Your task to perform on an android device: Clear the cart on target. Add "usb-c" to the cart on target Image 0: 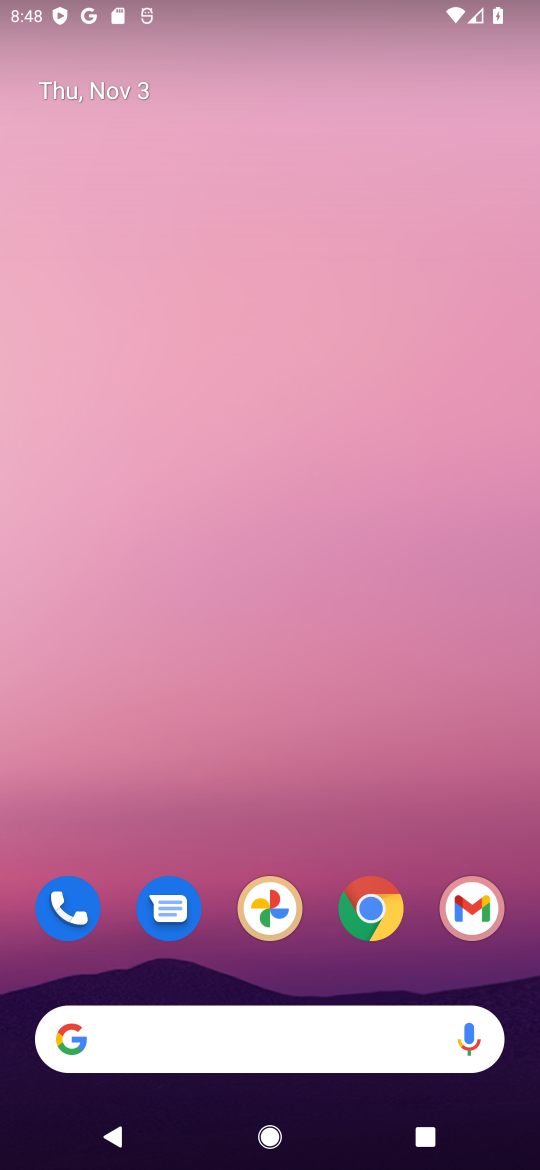
Step 0: click (357, 901)
Your task to perform on an android device: Clear the cart on target. Add "usb-c" to the cart on target Image 1: 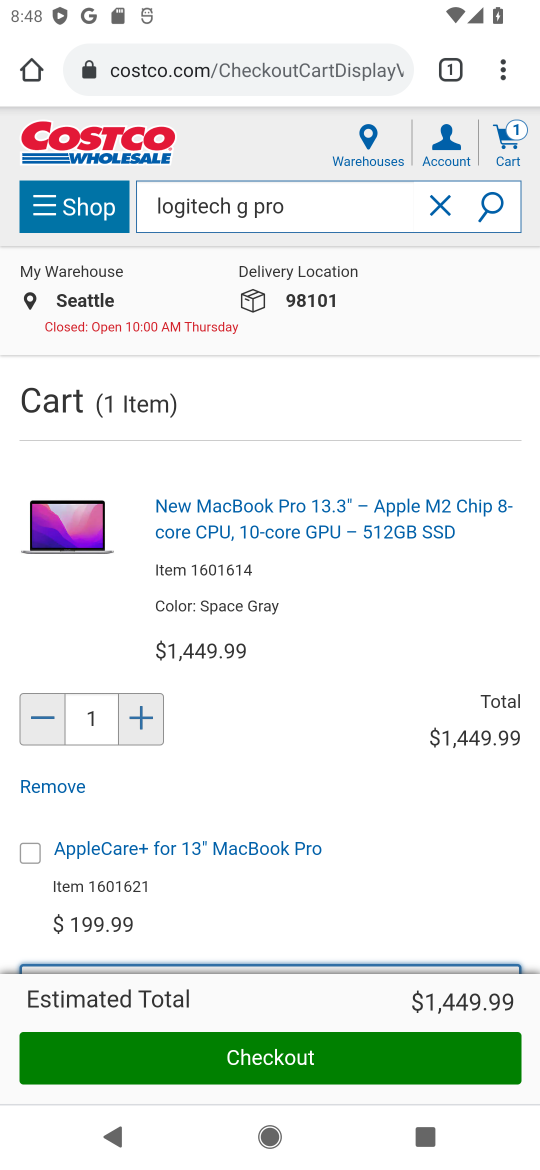
Step 1: click (338, 53)
Your task to perform on an android device: Clear the cart on target. Add "usb-c" to the cart on target Image 2: 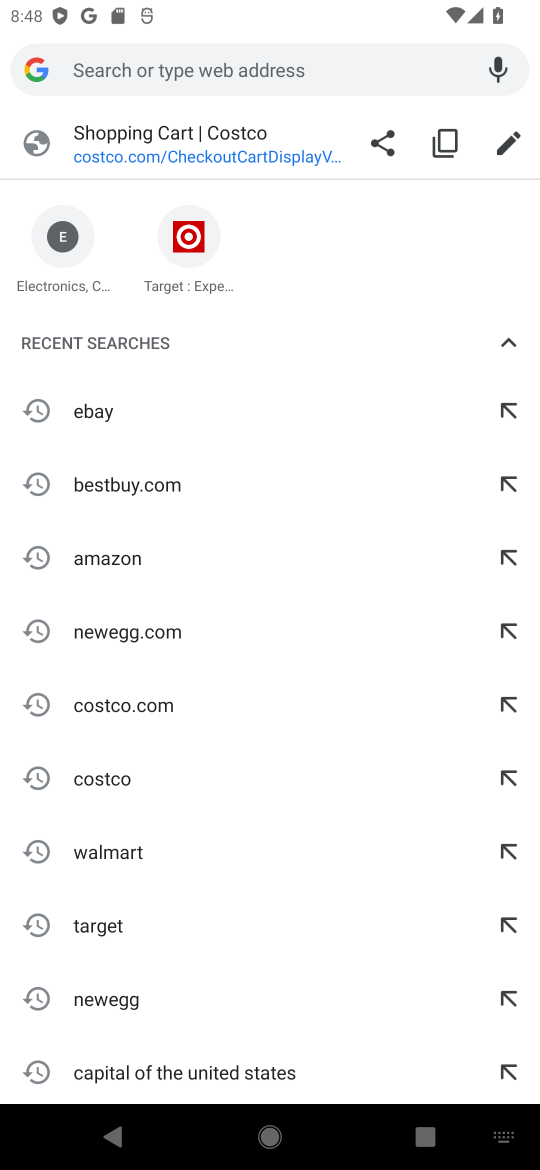
Step 2: click (191, 254)
Your task to perform on an android device: Clear the cart on target. Add "usb-c" to the cart on target Image 3: 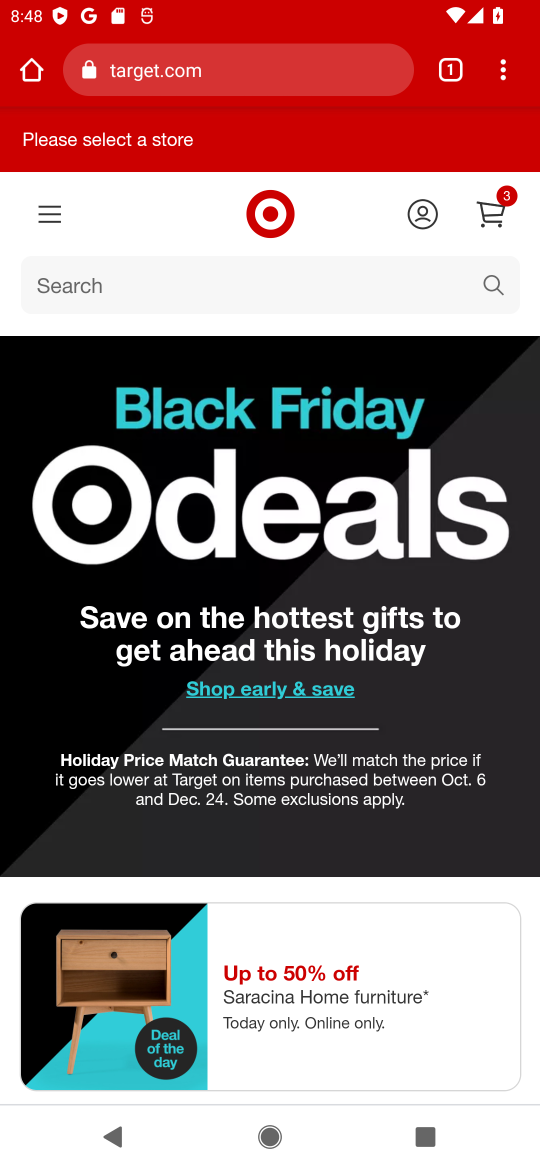
Step 3: click (495, 219)
Your task to perform on an android device: Clear the cart on target. Add "usb-c" to the cart on target Image 4: 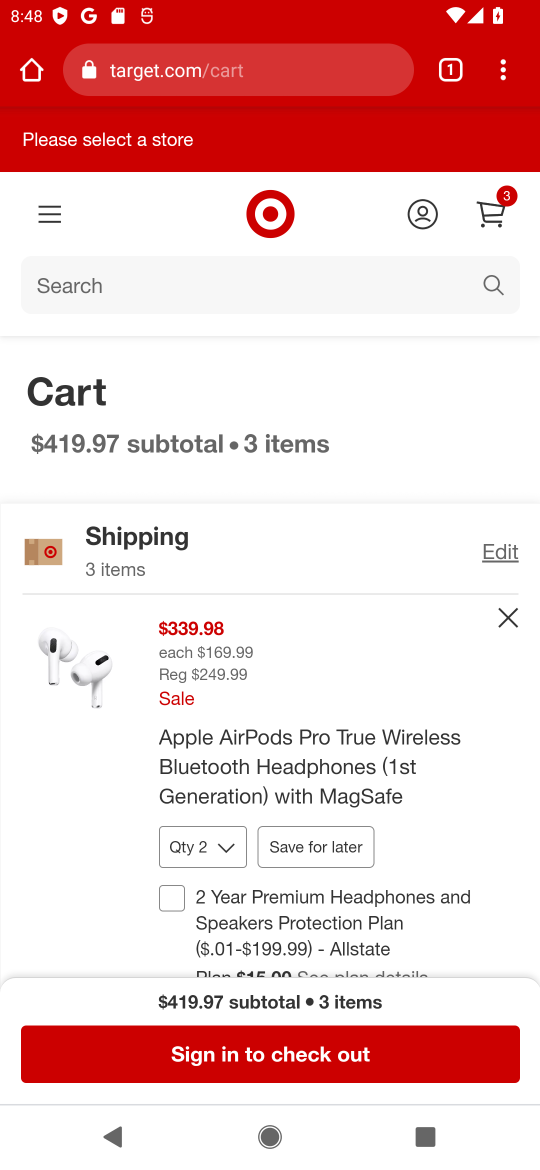
Step 4: click (502, 615)
Your task to perform on an android device: Clear the cart on target. Add "usb-c" to the cart on target Image 5: 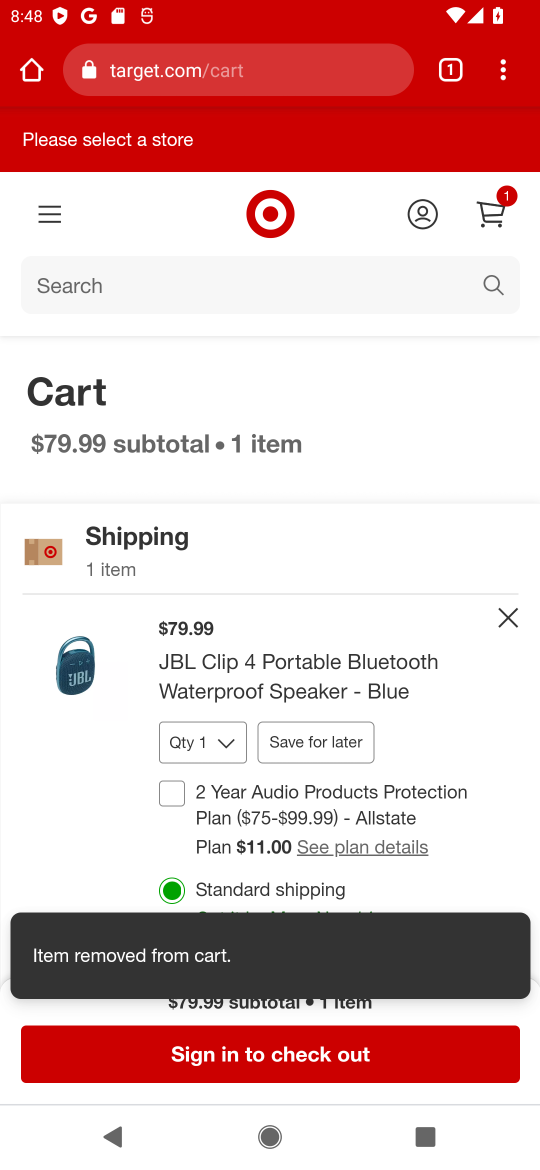
Step 5: click (502, 615)
Your task to perform on an android device: Clear the cart on target. Add "usb-c" to the cart on target Image 6: 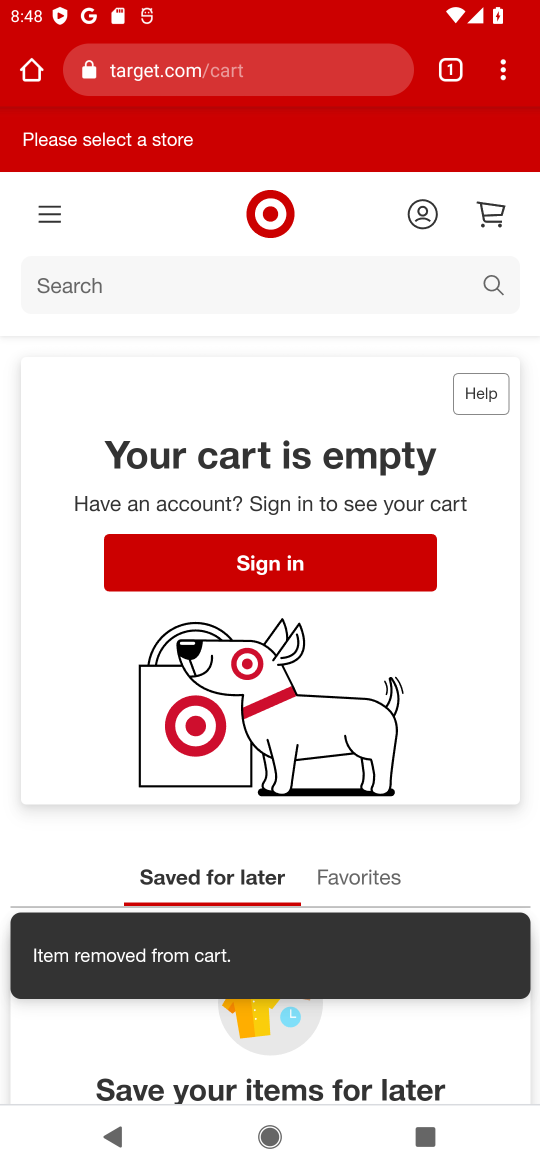
Step 6: click (493, 277)
Your task to perform on an android device: Clear the cart on target. Add "usb-c" to the cart on target Image 7: 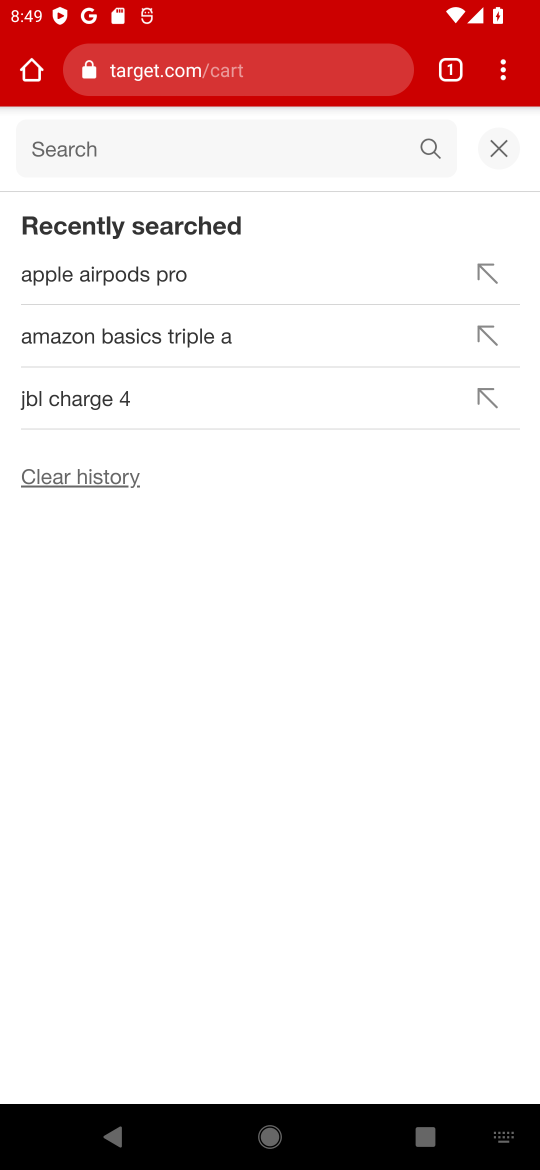
Step 7: type ""usb-c"
Your task to perform on an android device: Clear the cart on target. Add "usb-c" to the cart on target Image 8: 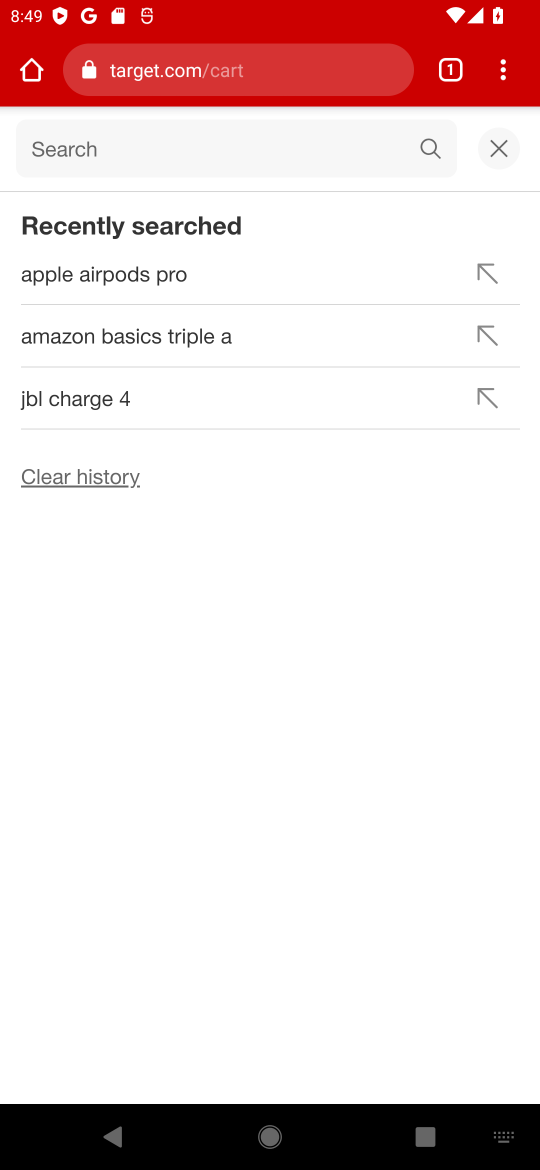
Step 8: click (225, 157)
Your task to perform on an android device: Clear the cart on target. Add "usb-c" to the cart on target Image 9: 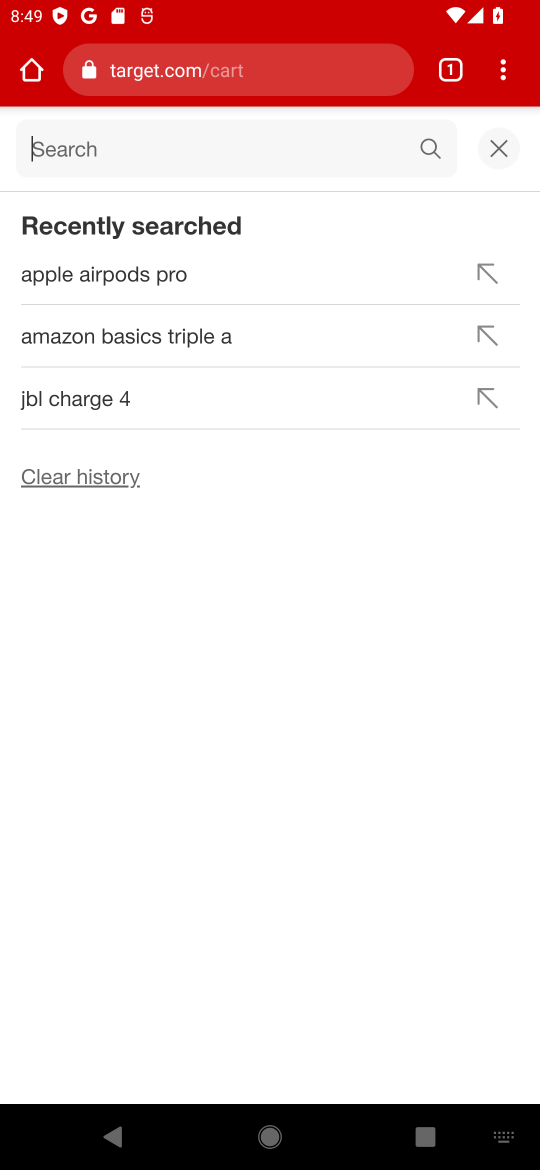
Step 9: type ""usb-c"
Your task to perform on an android device: Clear the cart on target. Add "usb-c" to the cart on target Image 10: 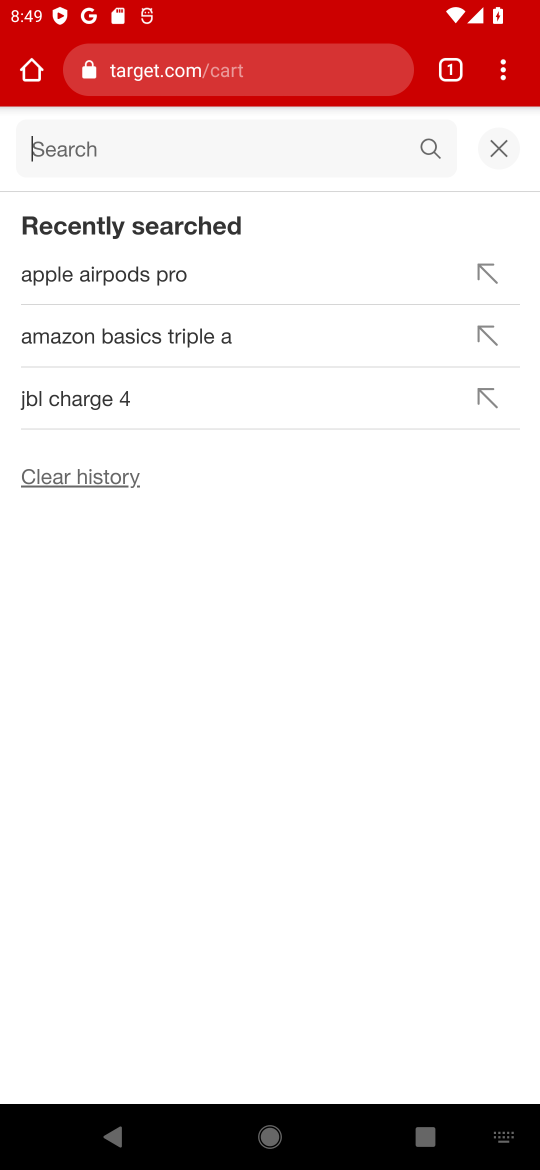
Step 10: type "usb-c"
Your task to perform on an android device: Clear the cart on target. Add "usb-c" to the cart on target Image 11: 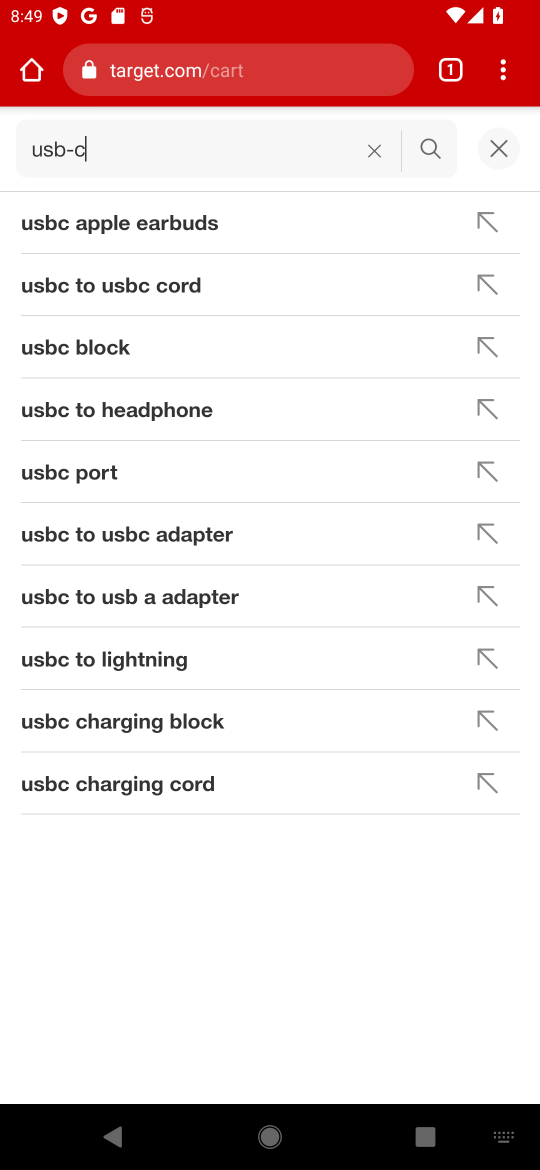
Step 11: click (63, 472)
Your task to perform on an android device: Clear the cart on target. Add "usb-c" to the cart on target Image 12: 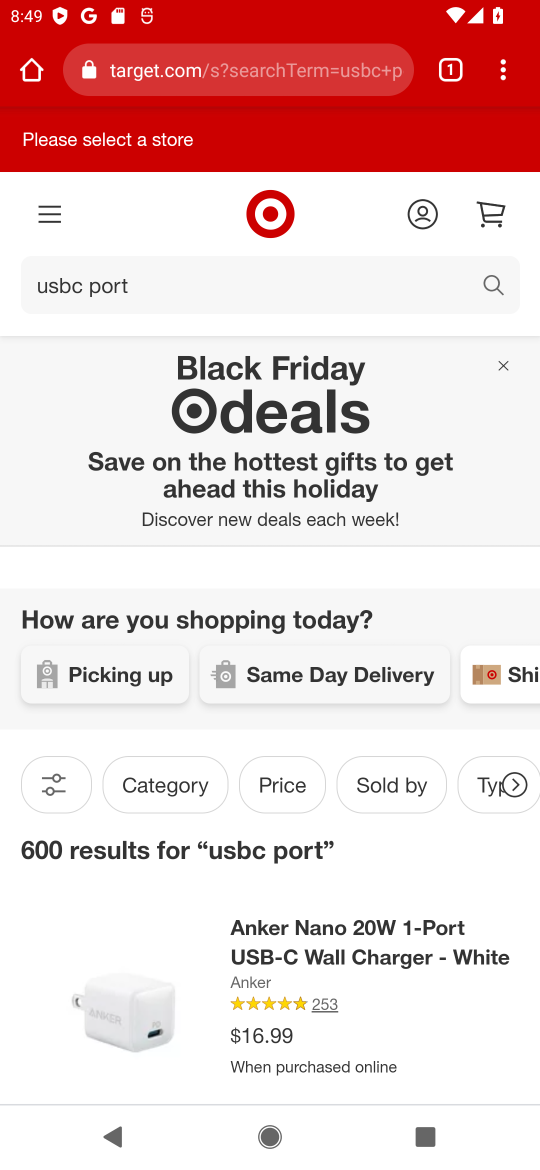
Step 12: drag from (392, 937) to (407, 462)
Your task to perform on an android device: Clear the cart on target. Add "usb-c" to the cart on target Image 13: 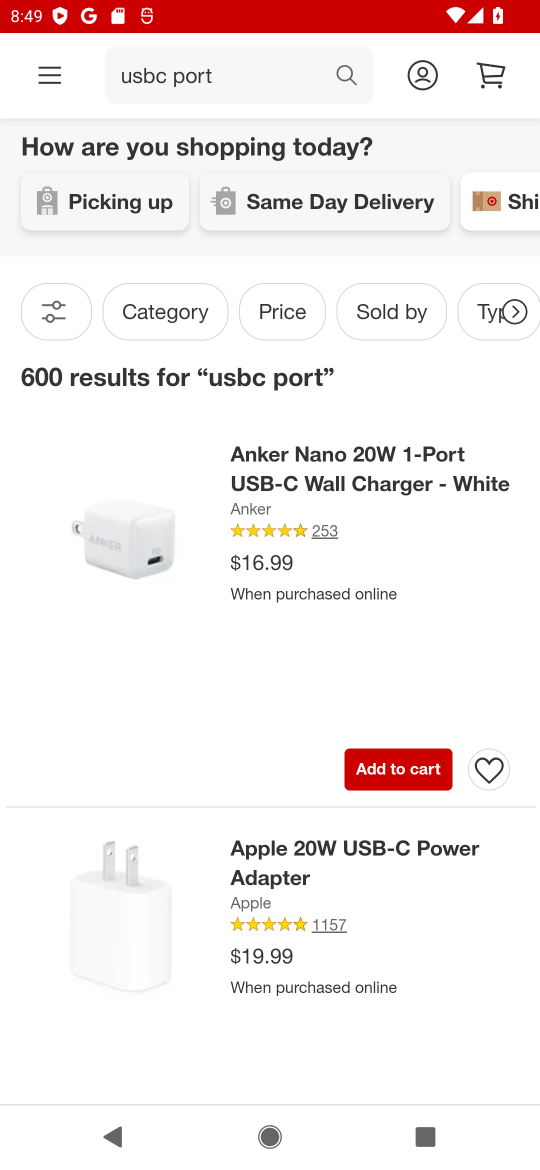
Step 13: click (141, 533)
Your task to perform on an android device: Clear the cart on target. Add "usb-c" to the cart on target Image 14: 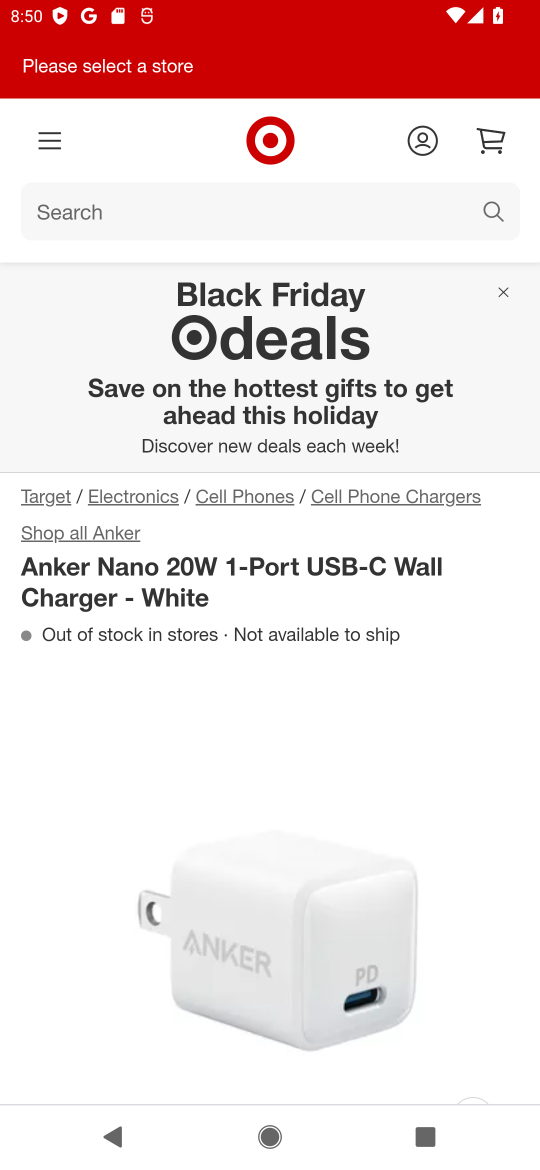
Step 14: drag from (372, 757) to (362, 388)
Your task to perform on an android device: Clear the cart on target. Add "usb-c" to the cart on target Image 15: 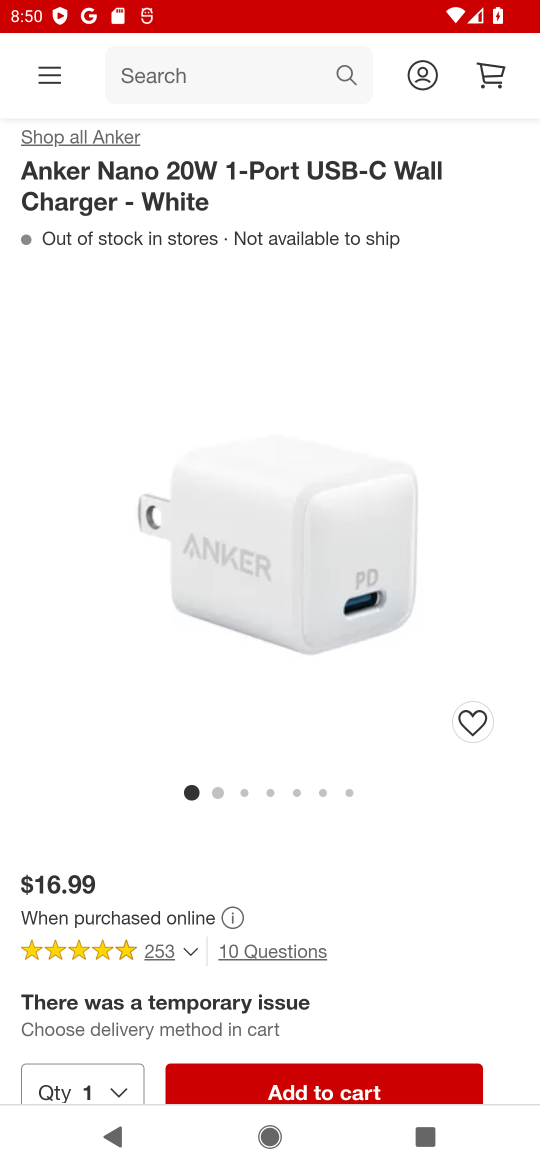
Step 15: drag from (381, 921) to (408, 678)
Your task to perform on an android device: Clear the cart on target. Add "usb-c" to the cart on target Image 16: 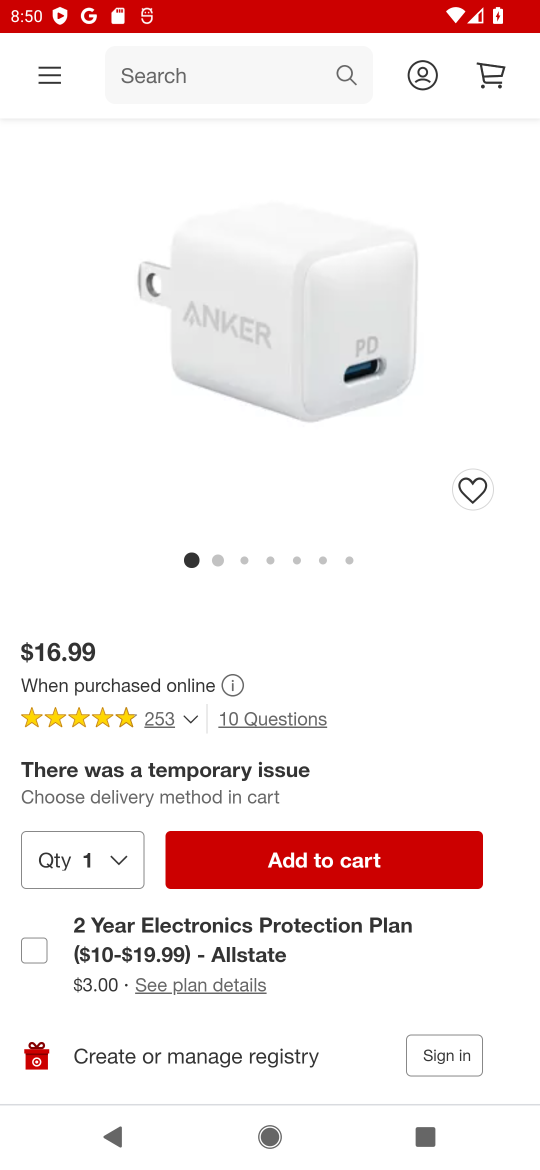
Step 16: click (362, 855)
Your task to perform on an android device: Clear the cart on target. Add "usb-c" to the cart on target Image 17: 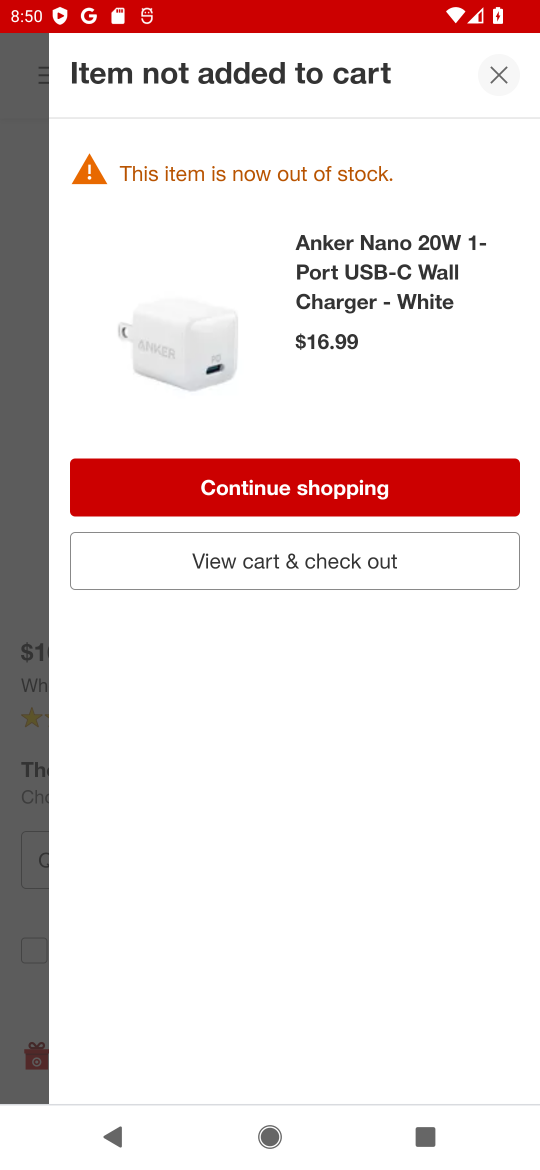
Step 17: task complete